Your task to perform on an android device: Go to sound settings Image 0: 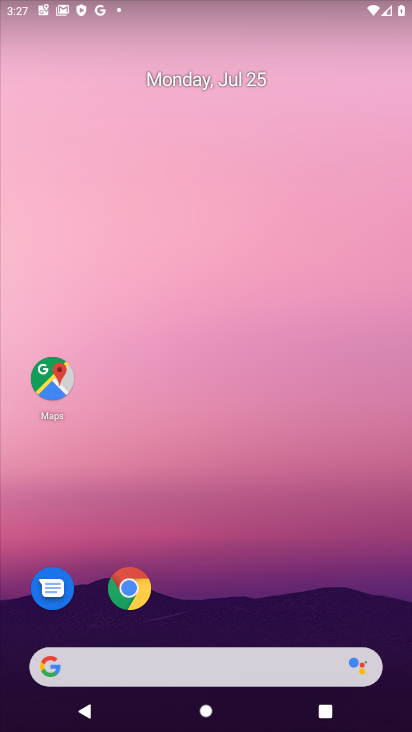
Step 0: drag from (394, 713) to (347, 204)
Your task to perform on an android device: Go to sound settings Image 1: 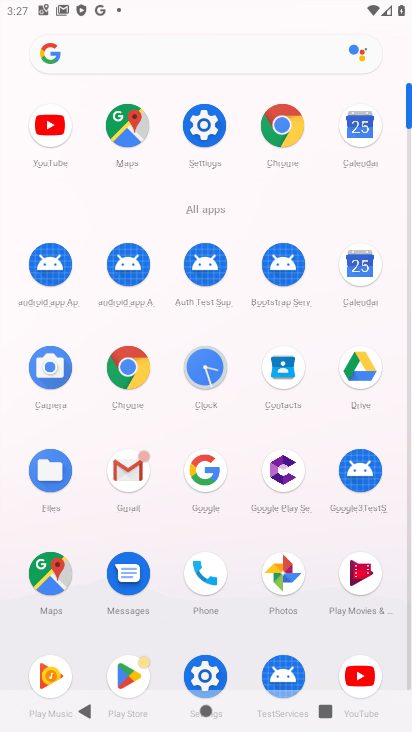
Step 1: click (197, 130)
Your task to perform on an android device: Go to sound settings Image 2: 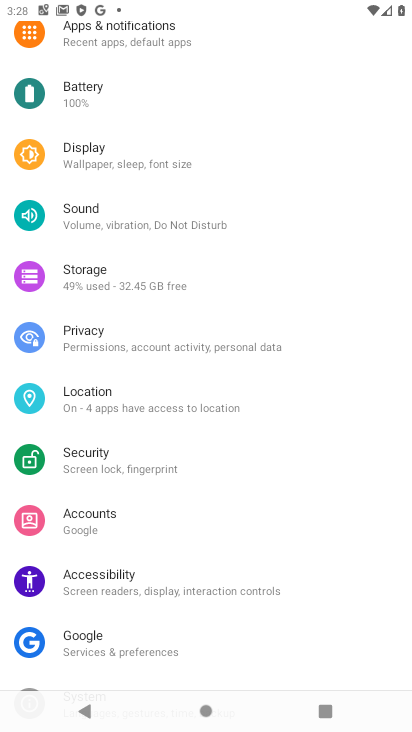
Step 2: click (80, 210)
Your task to perform on an android device: Go to sound settings Image 3: 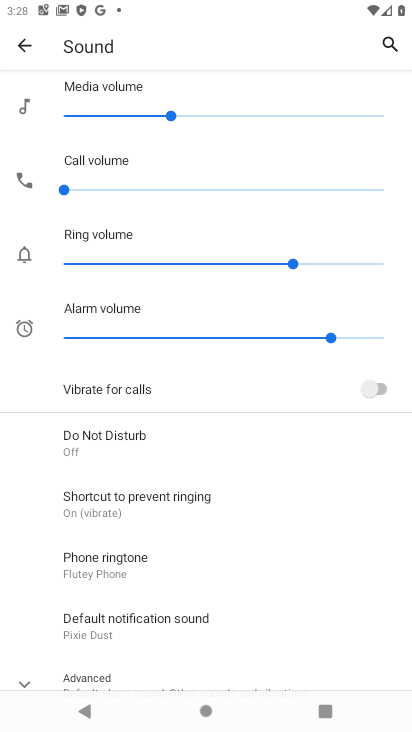
Step 3: task complete